Your task to perform on an android device: toggle wifi Image 0: 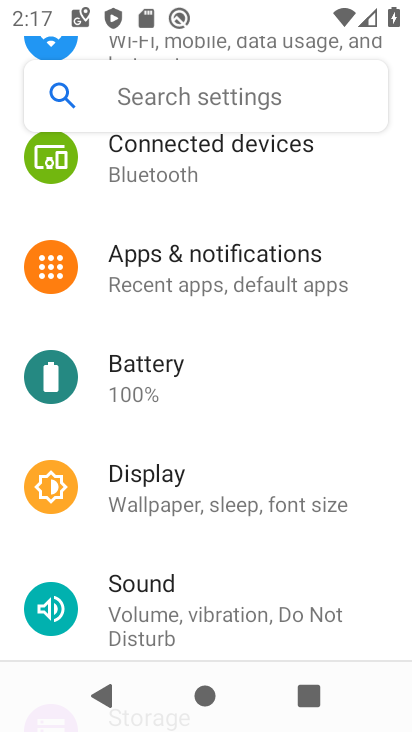
Step 0: press home button
Your task to perform on an android device: toggle wifi Image 1: 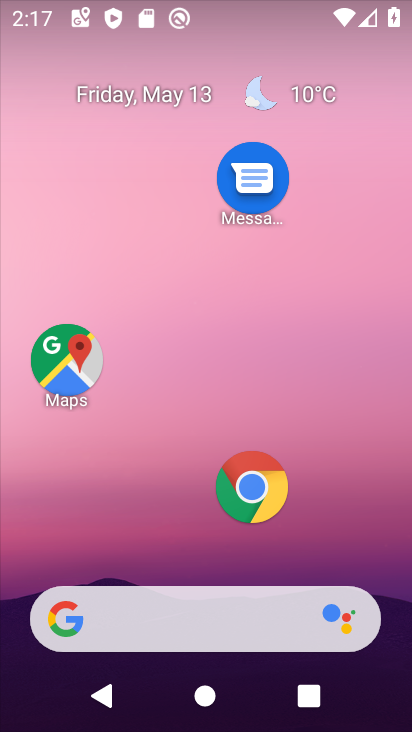
Step 1: drag from (154, 568) to (177, 226)
Your task to perform on an android device: toggle wifi Image 2: 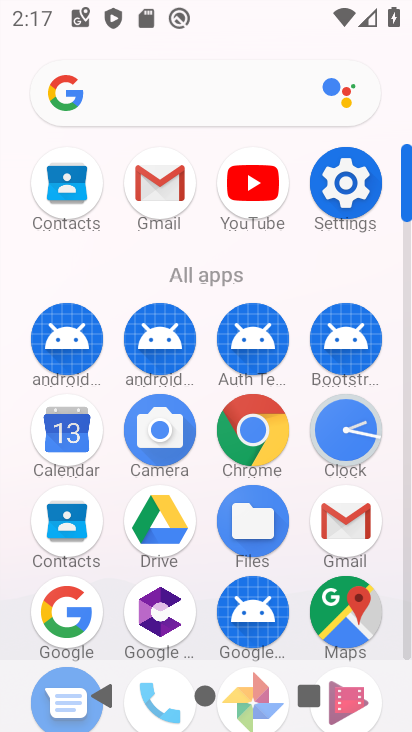
Step 2: click (349, 188)
Your task to perform on an android device: toggle wifi Image 3: 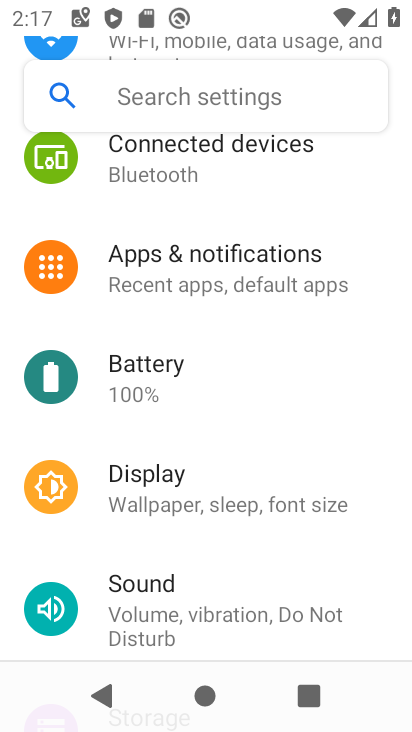
Step 3: drag from (248, 200) to (247, 507)
Your task to perform on an android device: toggle wifi Image 4: 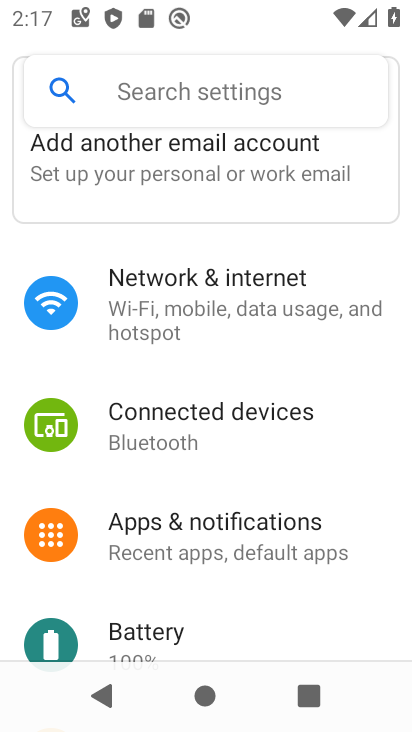
Step 4: click (215, 292)
Your task to perform on an android device: toggle wifi Image 5: 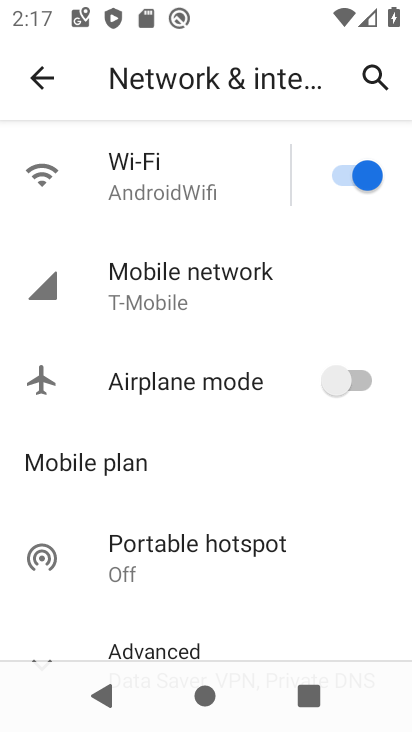
Step 5: click (199, 165)
Your task to perform on an android device: toggle wifi Image 6: 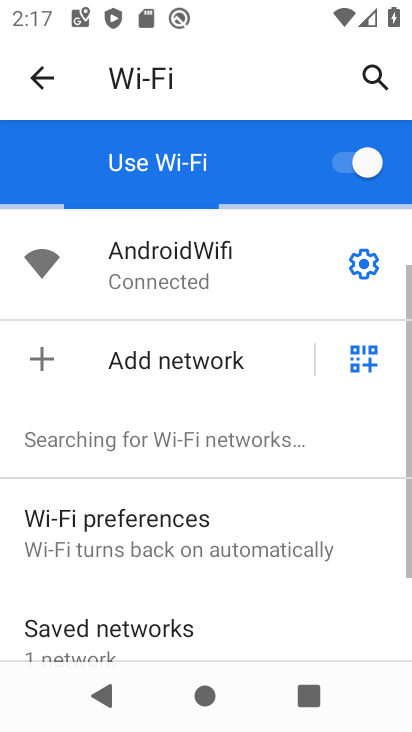
Step 6: click (350, 165)
Your task to perform on an android device: toggle wifi Image 7: 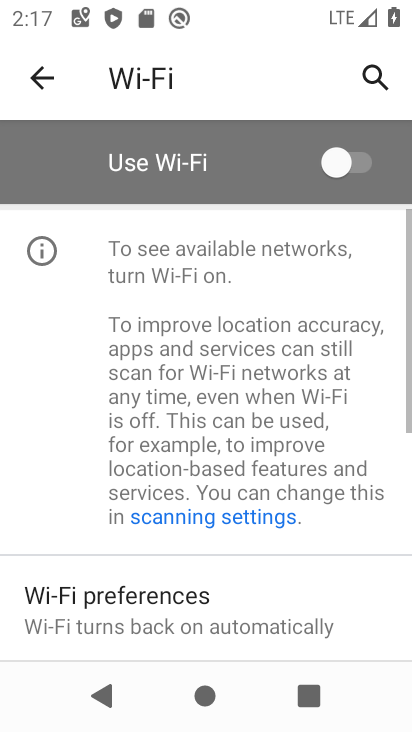
Step 7: task complete